Your task to perform on an android device: What's the news in China? Image 0: 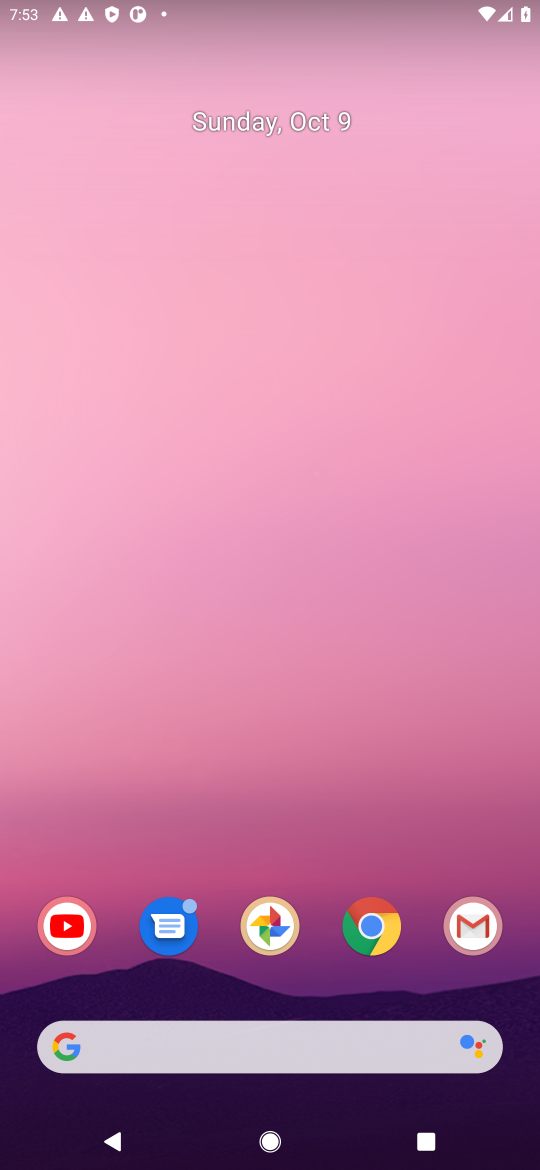
Step 0: drag from (316, 836) to (305, 278)
Your task to perform on an android device: What's the news in China? Image 1: 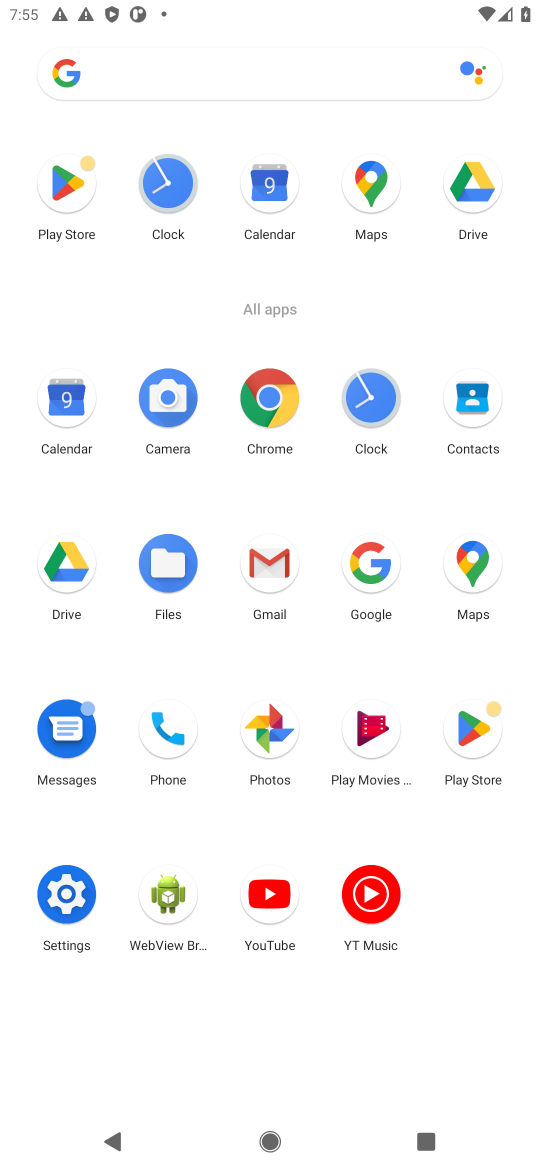
Step 1: click (268, 400)
Your task to perform on an android device: What's the news in China? Image 2: 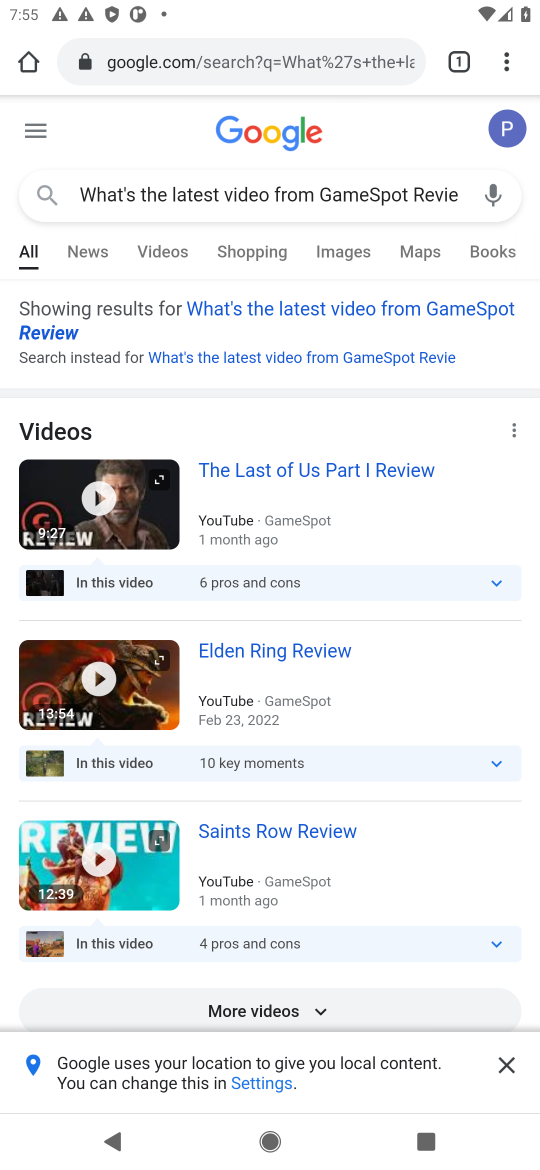
Step 2: click (335, 203)
Your task to perform on an android device: What's the news in China? Image 3: 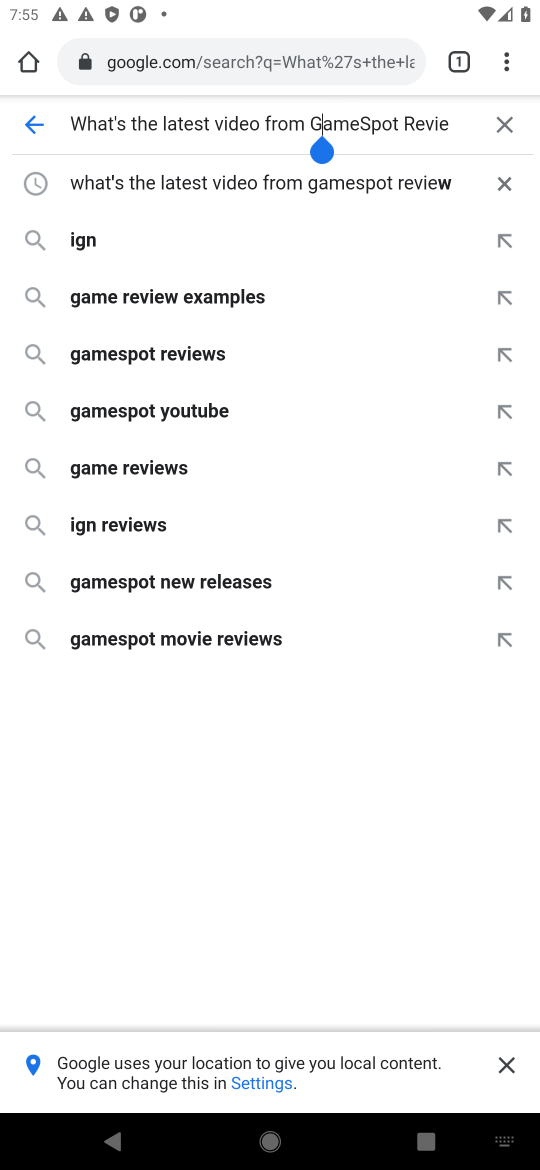
Step 3: click (505, 112)
Your task to perform on an android device: What's the news in China? Image 4: 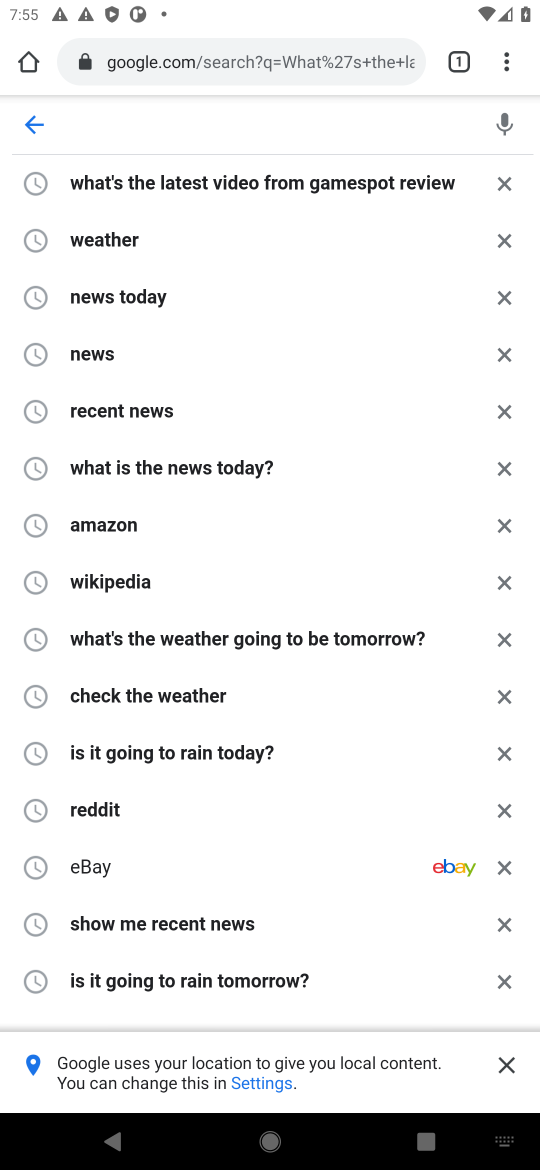
Step 4: type "What's the news in China?"
Your task to perform on an android device: What's the news in China? Image 5: 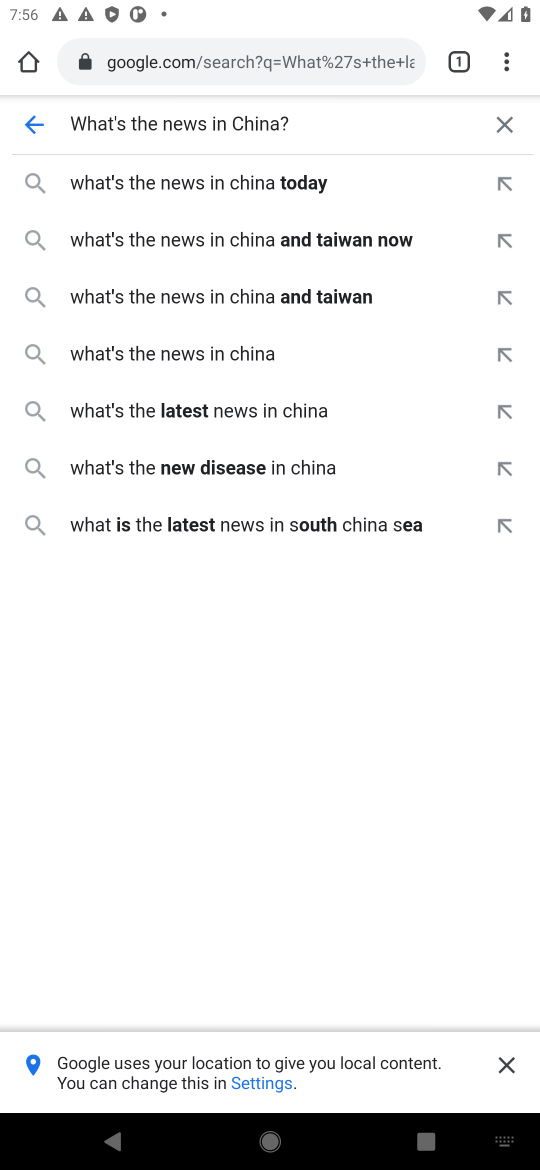
Step 5: click (290, 181)
Your task to perform on an android device: What's the news in China? Image 6: 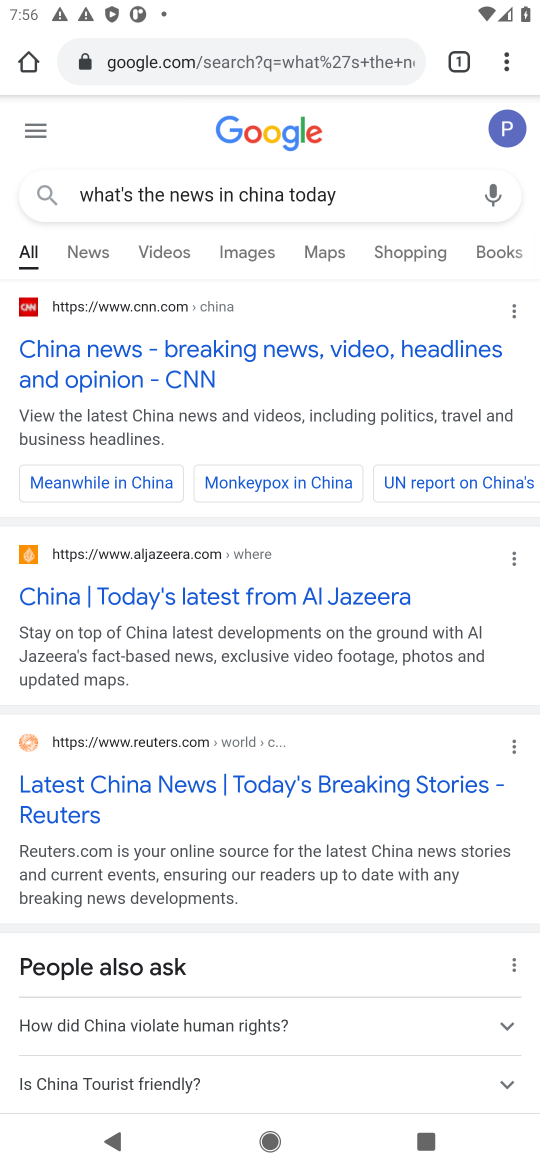
Step 6: click (101, 256)
Your task to perform on an android device: What's the news in China? Image 7: 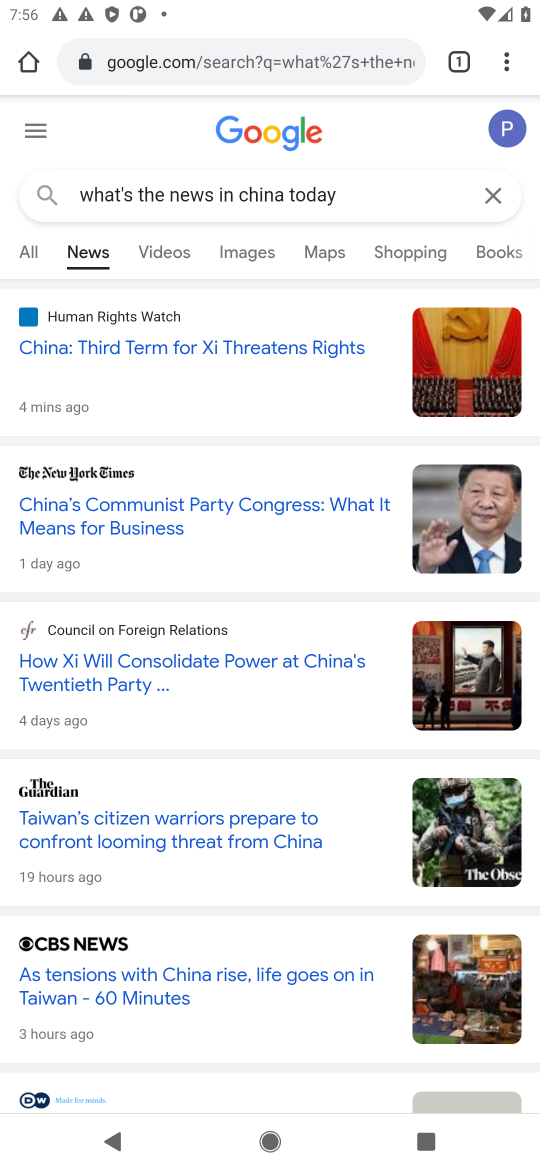
Step 7: task complete